Your task to perform on an android device: allow cookies in the chrome app Image 0: 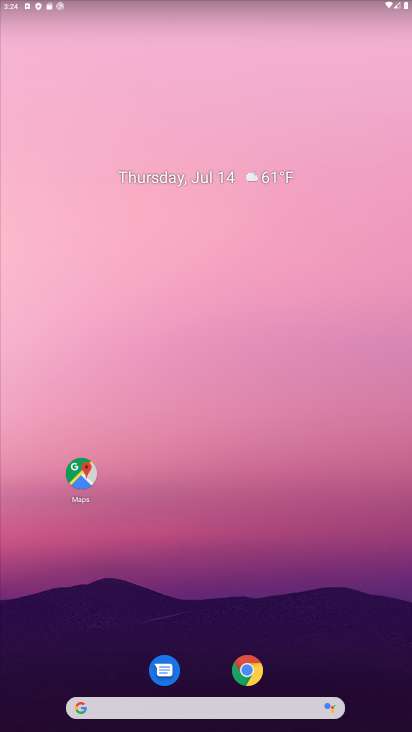
Step 0: click (244, 660)
Your task to perform on an android device: allow cookies in the chrome app Image 1: 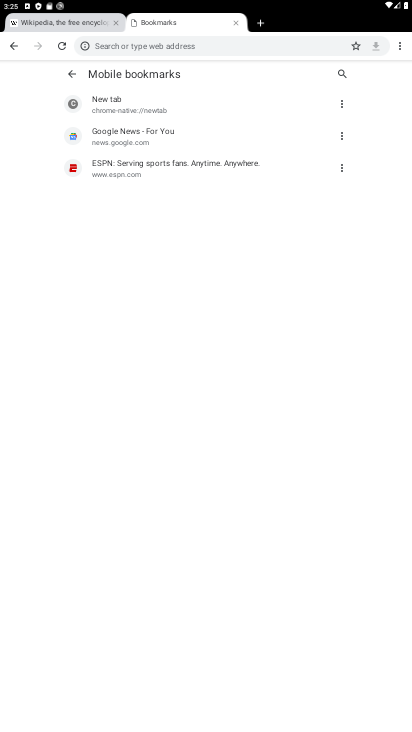
Step 1: click (404, 49)
Your task to perform on an android device: allow cookies in the chrome app Image 2: 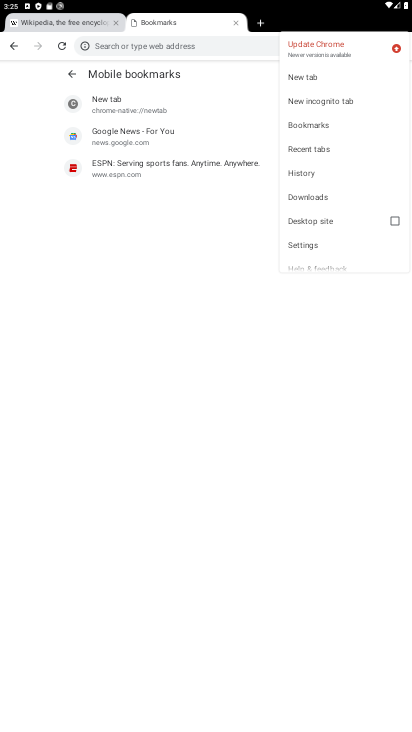
Step 2: click (300, 166)
Your task to perform on an android device: allow cookies in the chrome app Image 3: 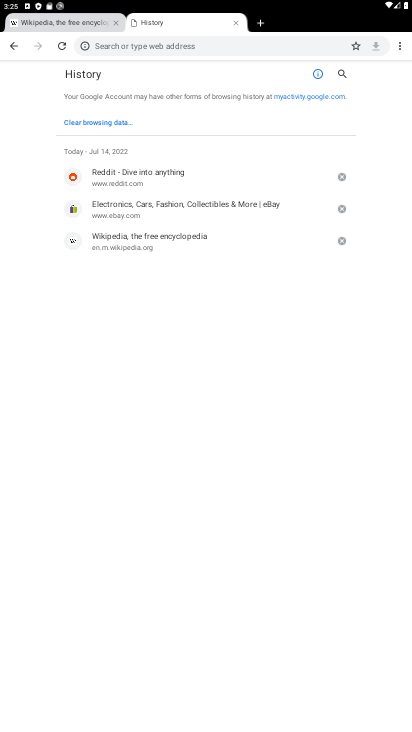
Step 3: click (68, 123)
Your task to perform on an android device: allow cookies in the chrome app Image 4: 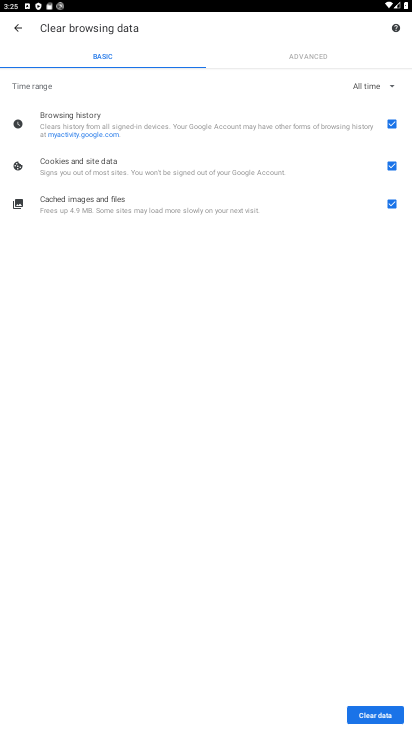
Step 4: click (392, 127)
Your task to perform on an android device: allow cookies in the chrome app Image 5: 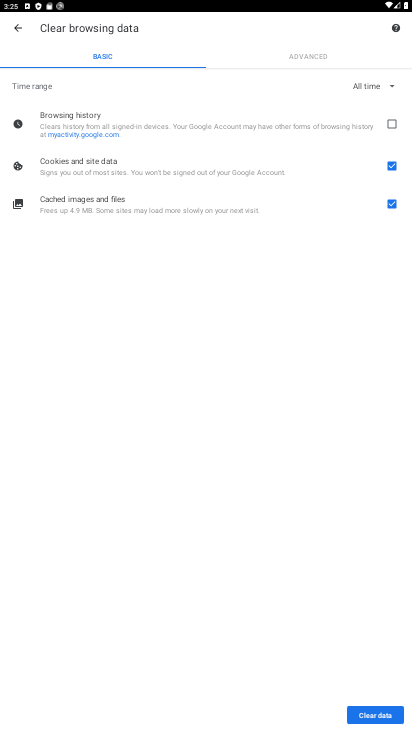
Step 5: click (392, 202)
Your task to perform on an android device: allow cookies in the chrome app Image 6: 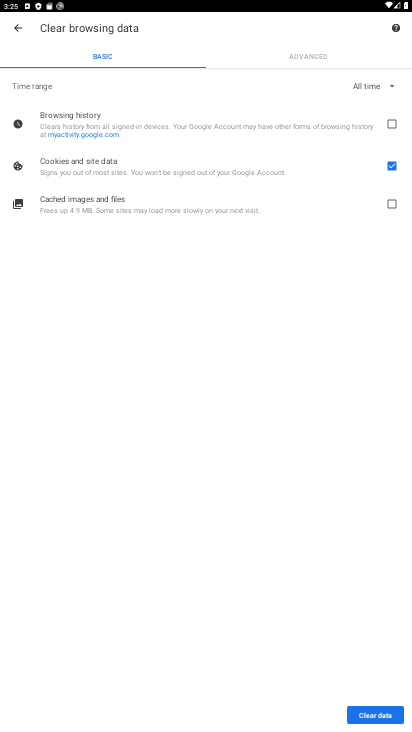
Step 6: click (374, 719)
Your task to perform on an android device: allow cookies in the chrome app Image 7: 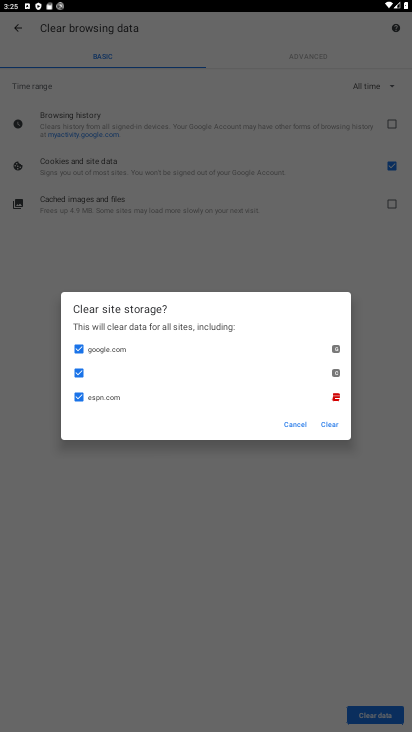
Step 7: click (320, 430)
Your task to perform on an android device: allow cookies in the chrome app Image 8: 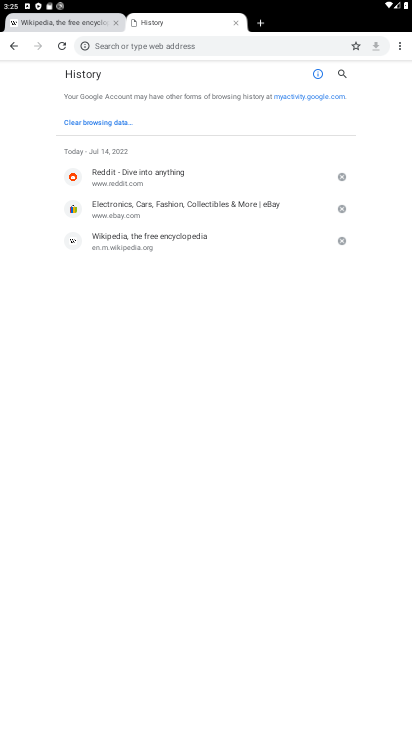
Step 8: task complete